Your task to perform on an android device: Open Google Maps Image 0: 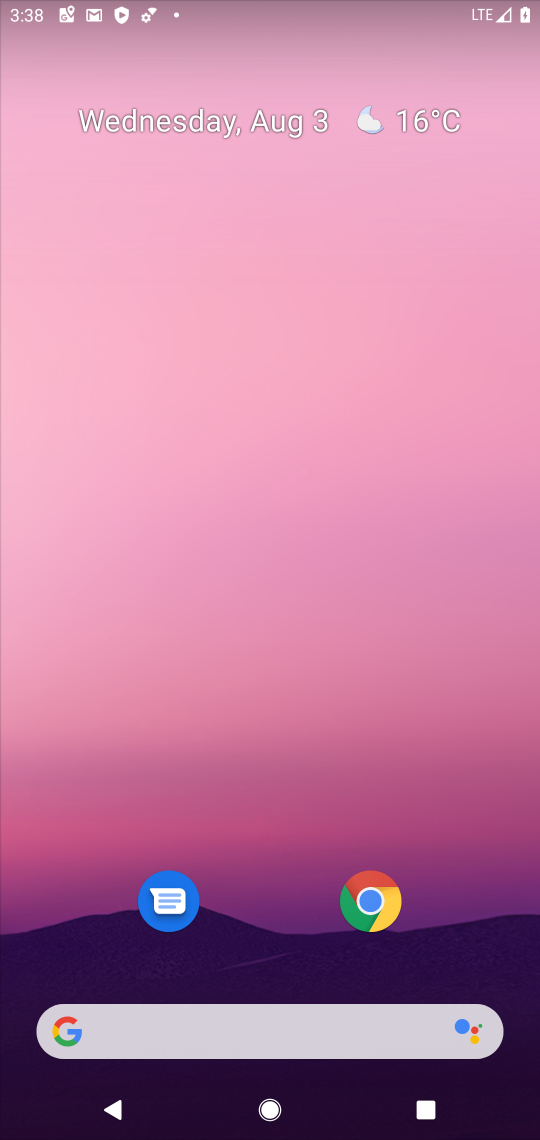
Step 0: drag from (506, 1025) to (448, 434)
Your task to perform on an android device: Open Google Maps Image 1: 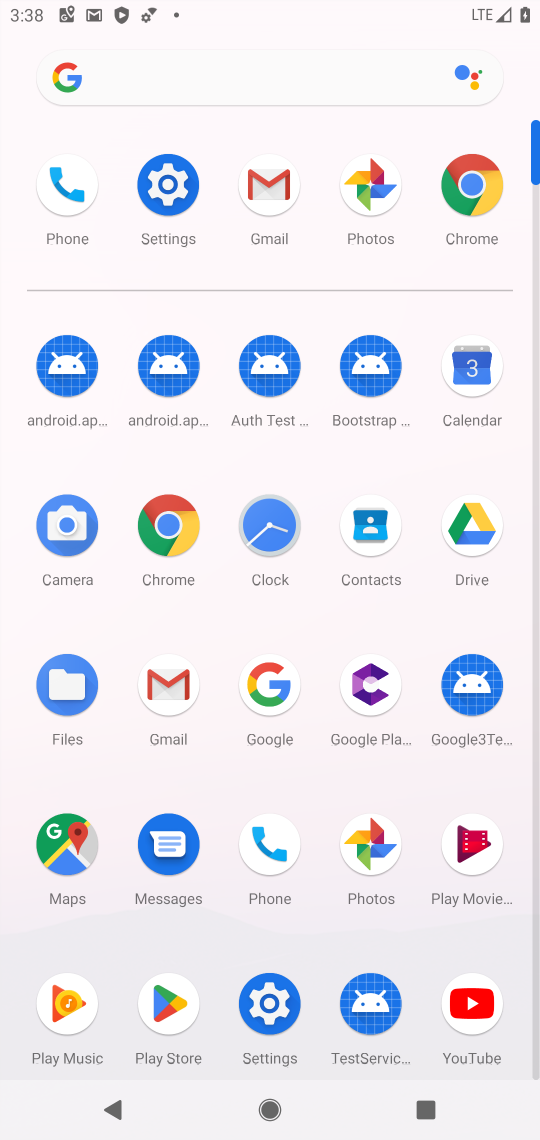
Step 1: click (65, 828)
Your task to perform on an android device: Open Google Maps Image 2: 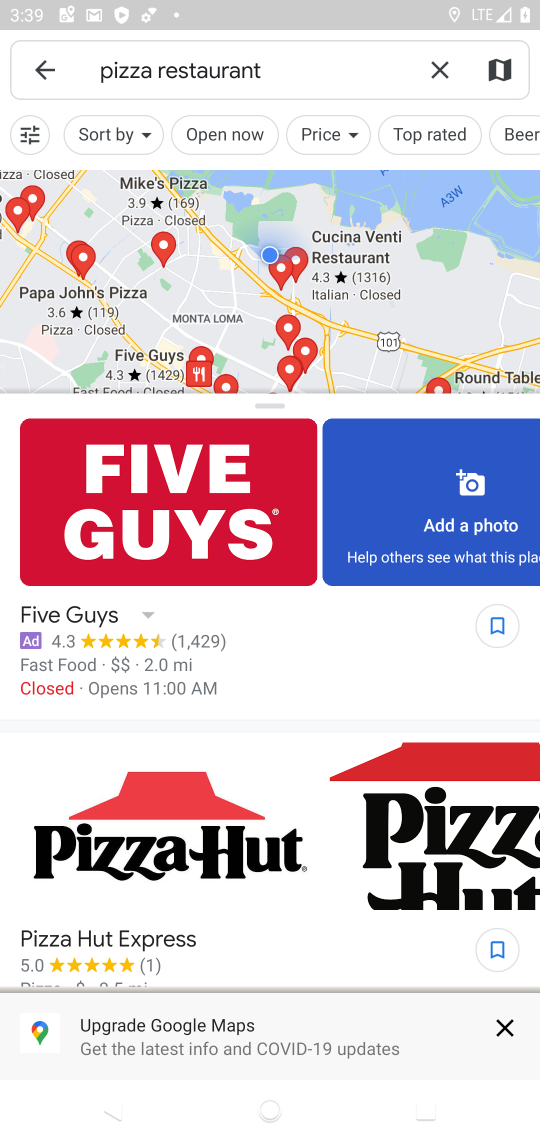
Step 2: task complete